Your task to perform on an android device: find which apps use the phone's location Image 0: 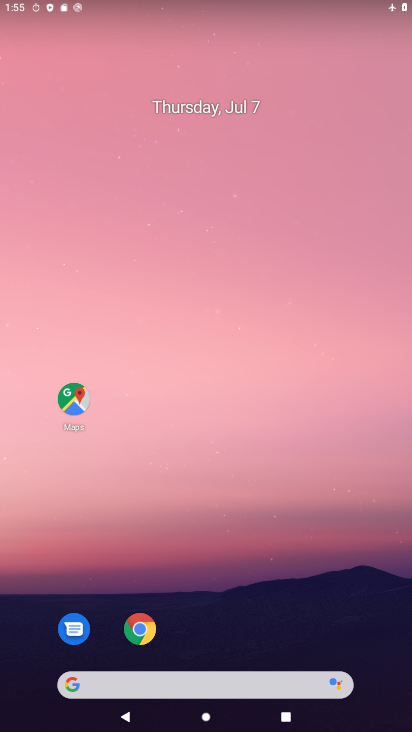
Step 0: click (275, 103)
Your task to perform on an android device: find which apps use the phone's location Image 1: 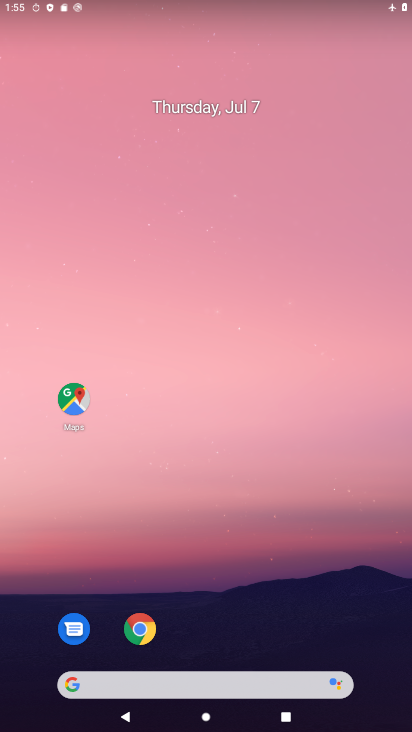
Step 1: drag from (238, 660) to (246, 32)
Your task to perform on an android device: find which apps use the phone's location Image 2: 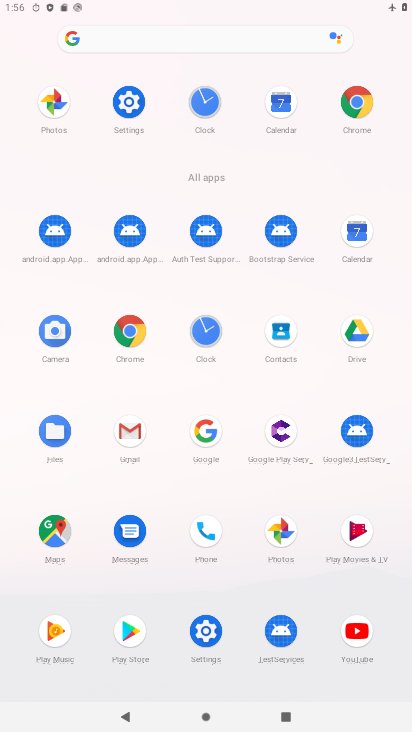
Step 2: click (192, 542)
Your task to perform on an android device: find which apps use the phone's location Image 3: 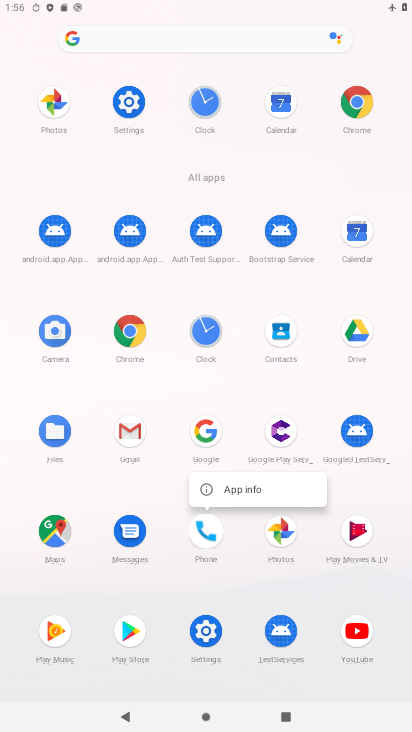
Step 3: click (211, 496)
Your task to perform on an android device: find which apps use the phone's location Image 4: 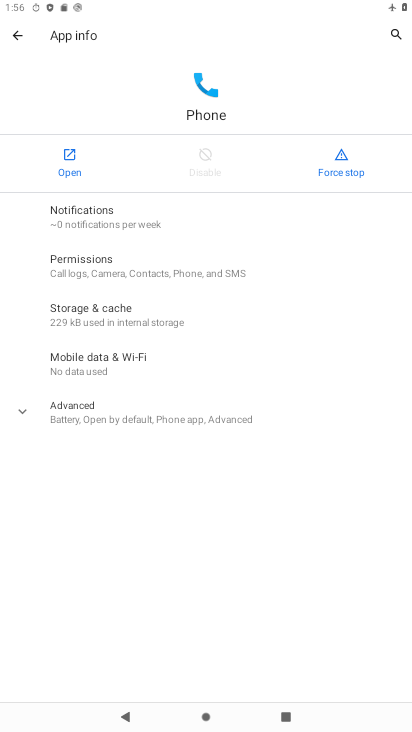
Step 4: click (95, 413)
Your task to perform on an android device: find which apps use the phone's location Image 5: 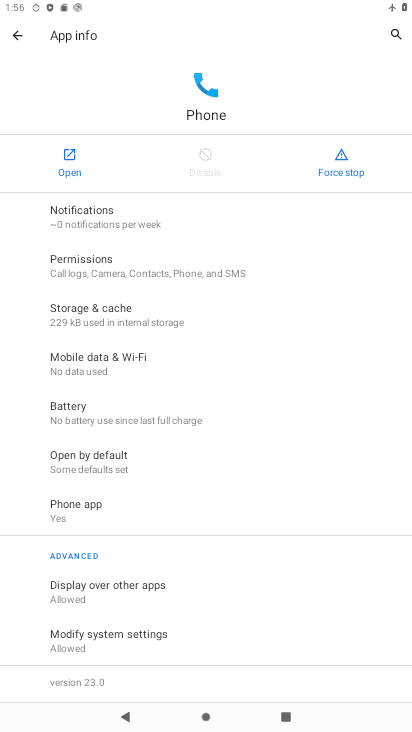
Step 5: click (104, 279)
Your task to perform on an android device: find which apps use the phone's location Image 6: 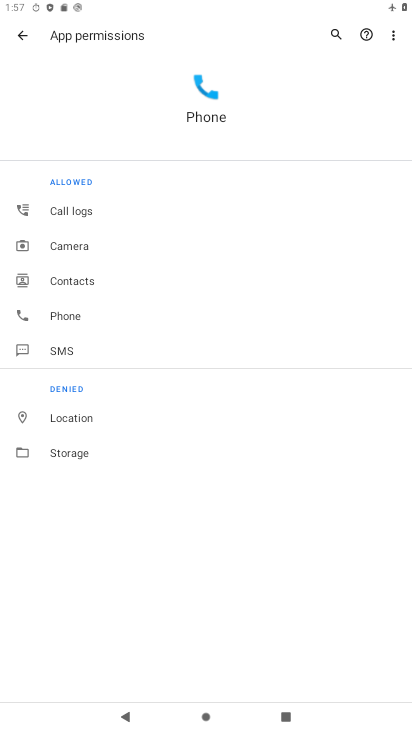
Step 6: click (86, 422)
Your task to perform on an android device: find which apps use the phone's location Image 7: 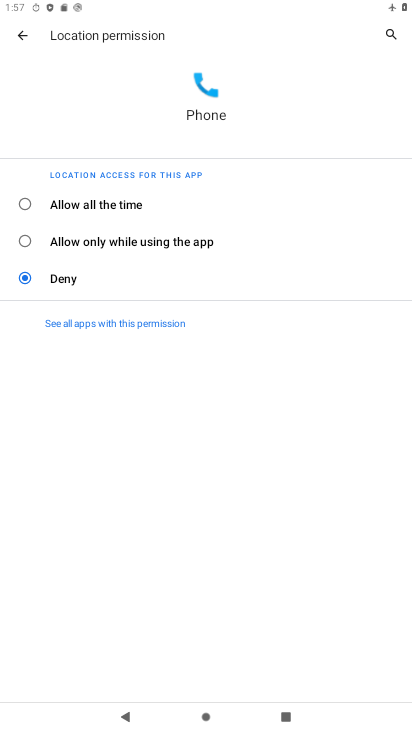
Step 7: click (113, 341)
Your task to perform on an android device: find which apps use the phone's location Image 8: 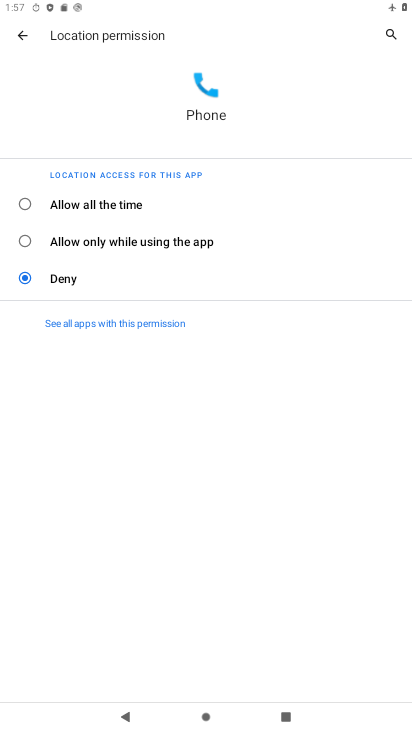
Step 8: click (89, 329)
Your task to perform on an android device: find which apps use the phone's location Image 9: 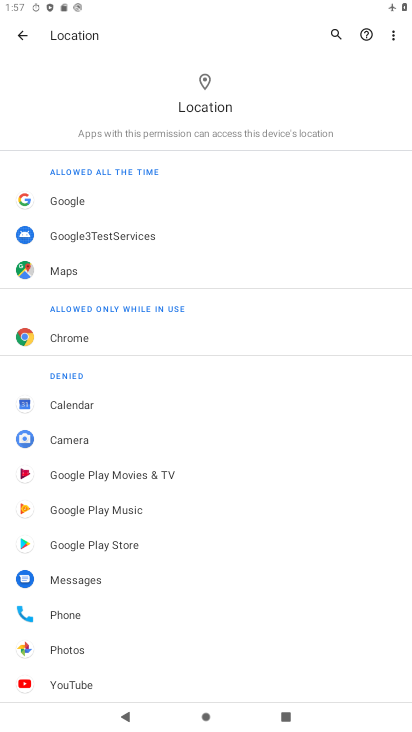
Step 9: task complete